Your task to perform on an android device: Go to location settings Image 0: 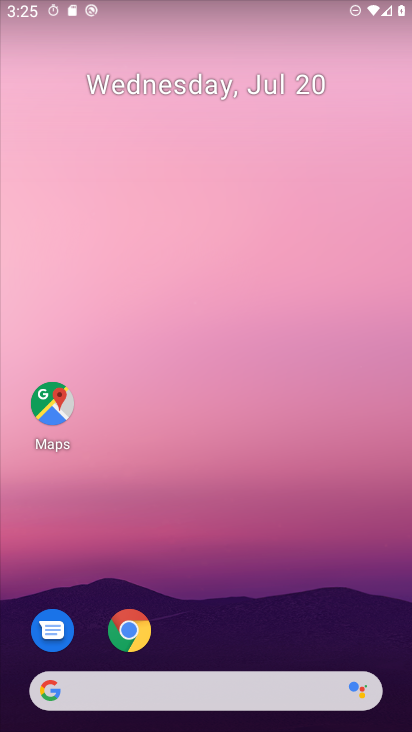
Step 0: drag from (304, 679) to (219, 121)
Your task to perform on an android device: Go to location settings Image 1: 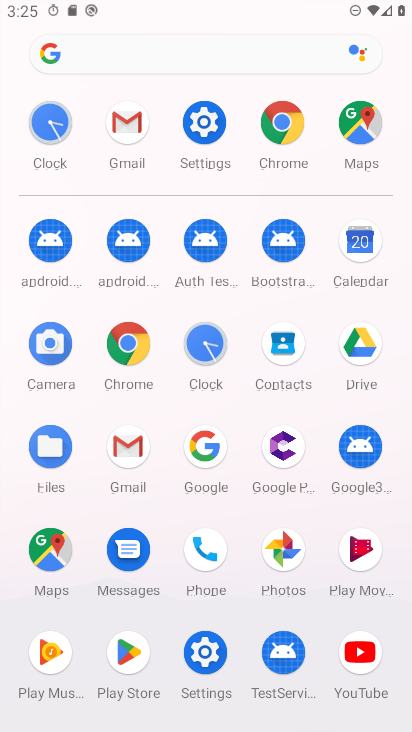
Step 1: click (198, 144)
Your task to perform on an android device: Go to location settings Image 2: 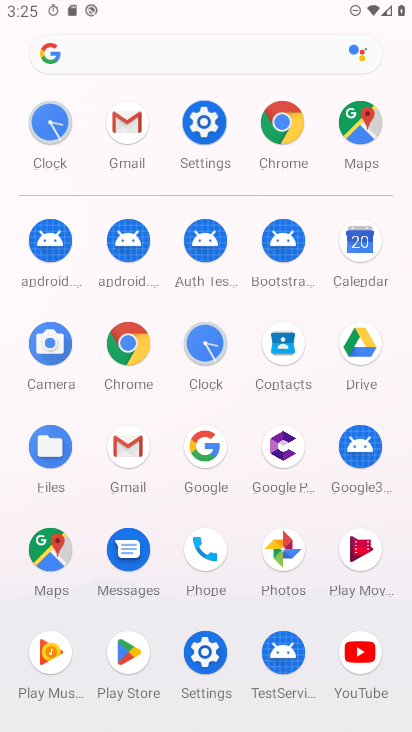
Step 2: click (195, 135)
Your task to perform on an android device: Go to location settings Image 3: 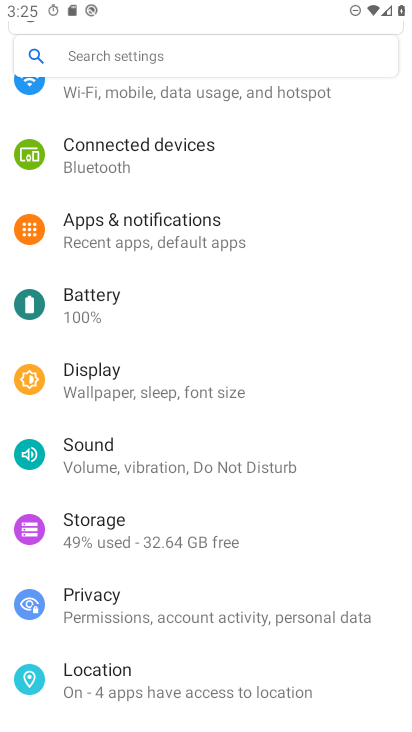
Step 3: click (81, 674)
Your task to perform on an android device: Go to location settings Image 4: 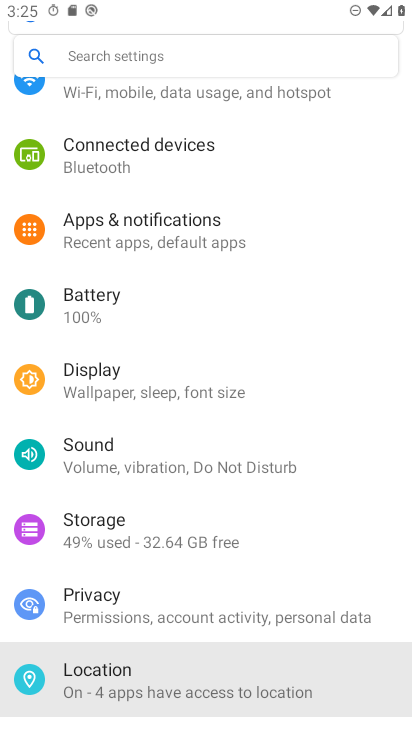
Step 4: click (82, 674)
Your task to perform on an android device: Go to location settings Image 5: 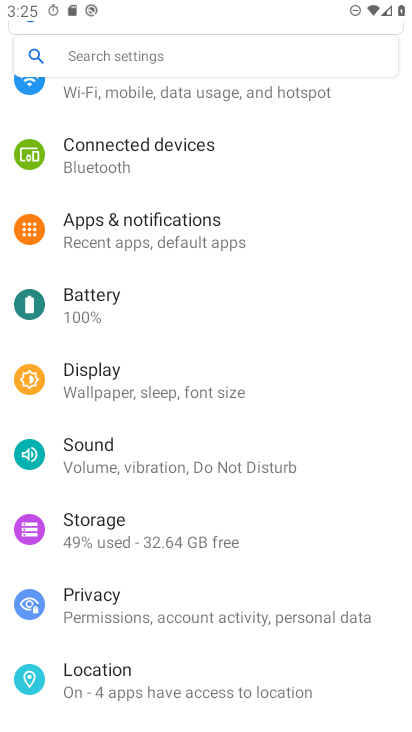
Step 5: click (82, 674)
Your task to perform on an android device: Go to location settings Image 6: 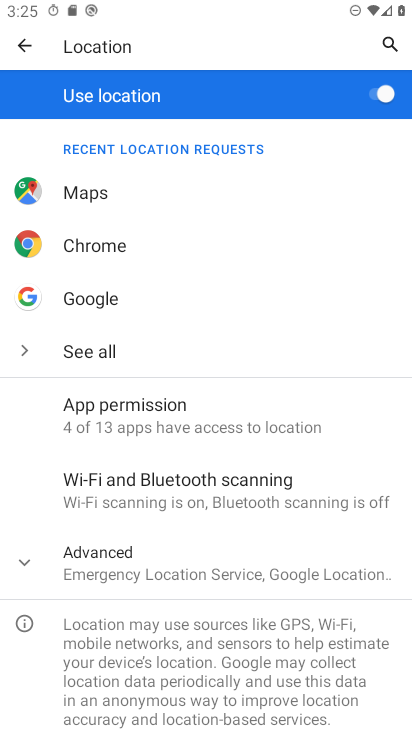
Step 6: click (133, 561)
Your task to perform on an android device: Go to location settings Image 7: 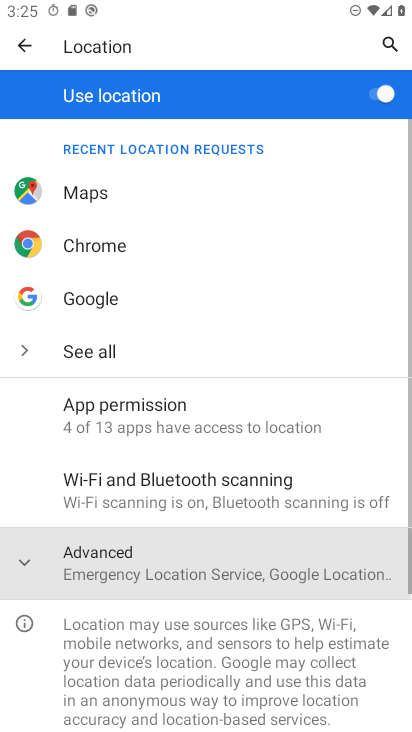
Step 7: click (132, 561)
Your task to perform on an android device: Go to location settings Image 8: 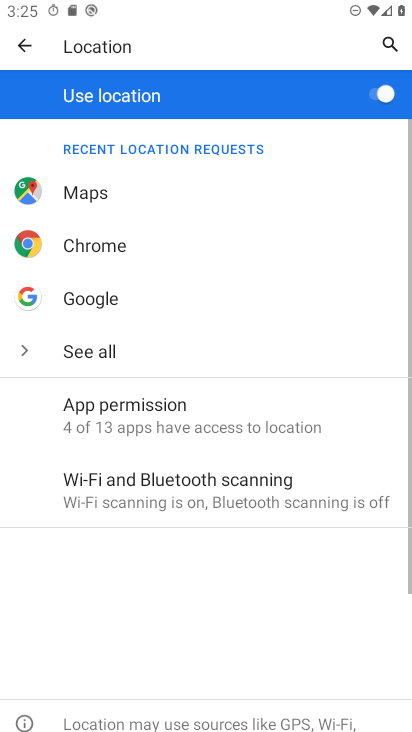
Step 8: click (132, 561)
Your task to perform on an android device: Go to location settings Image 9: 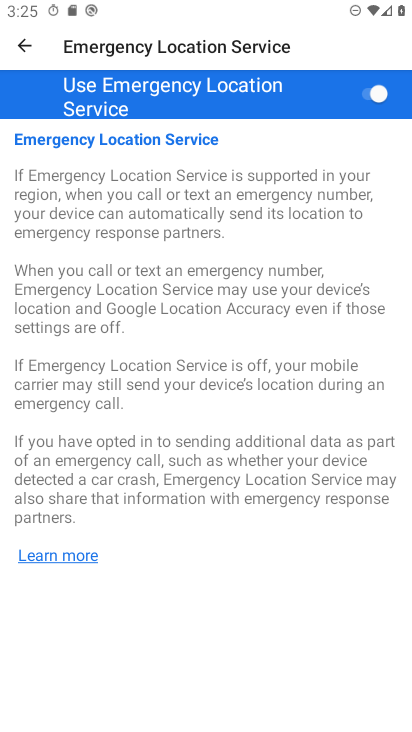
Step 9: task complete